Your task to perform on an android device: manage bookmarks in the chrome app Image 0: 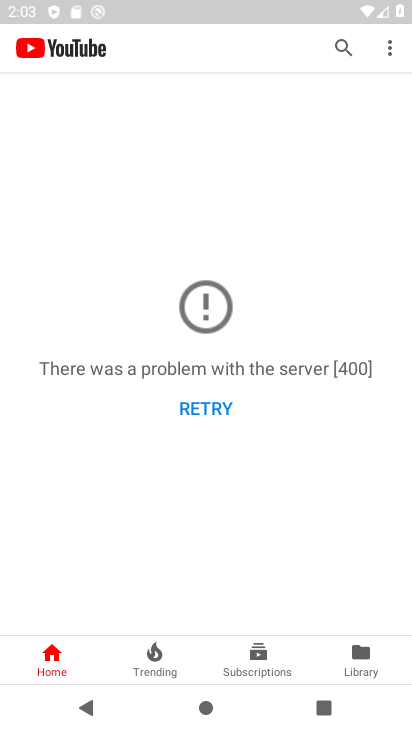
Step 0: press home button
Your task to perform on an android device: manage bookmarks in the chrome app Image 1: 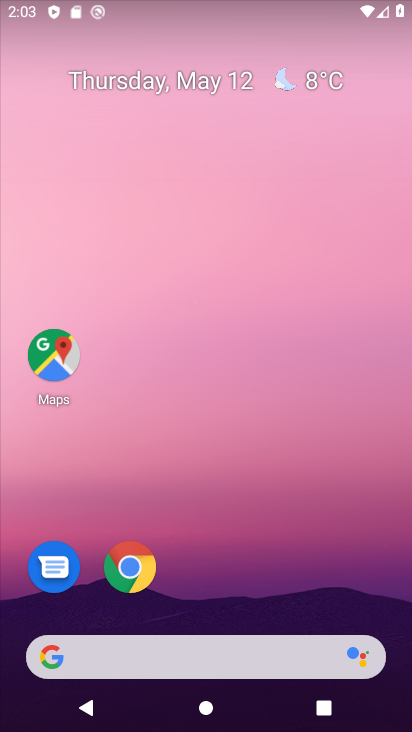
Step 1: click (134, 578)
Your task to perform on an android device: manage bookmarks in the chrome app Image 2: 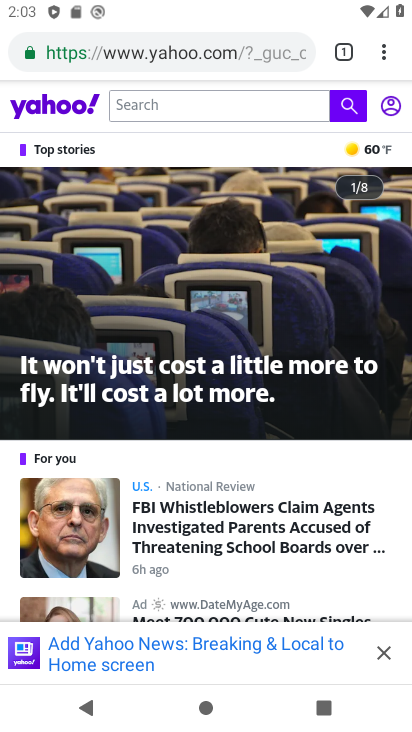
Step 2: task complete